Your task to perform on an android device: Open Yahoo.com Image 0: 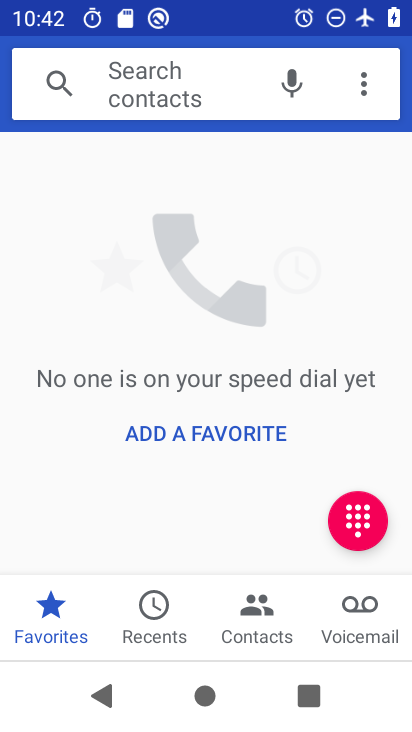
Step 0: press home button
Your task to perform on an android device: Open Yahoo.com Image 1: 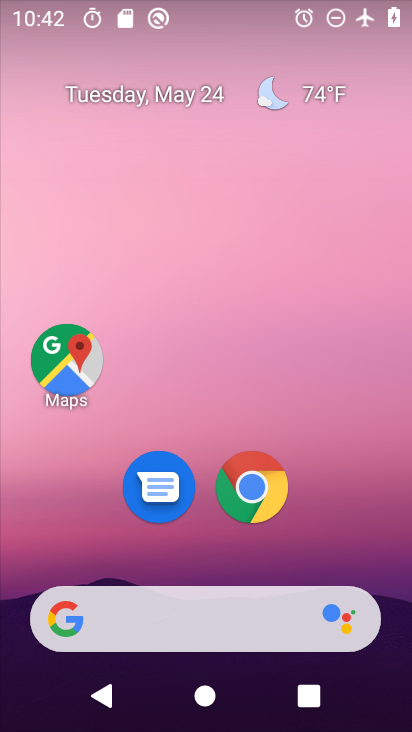
Step 1: click (255, 485)
Your task to perform on an android device: Open Yahoo.com Image 2: 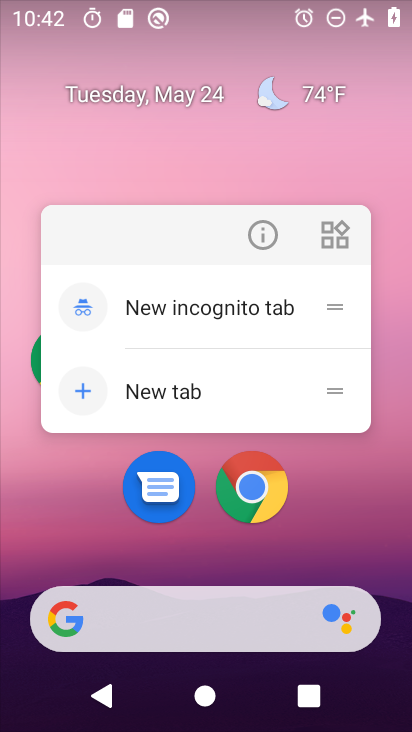
Step 2: click (255, 485)
Your task to perform on an android device: Open Yahoo.com Image 3: 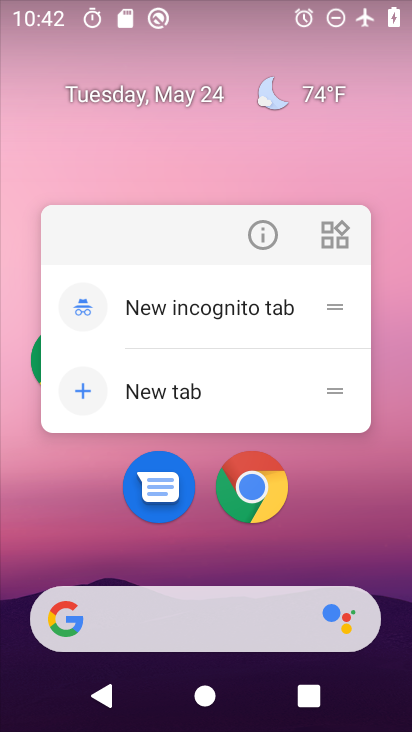
Step 3: click (252, 491)
Your task to perform on an android device: Open Yahoo.com Image 4: 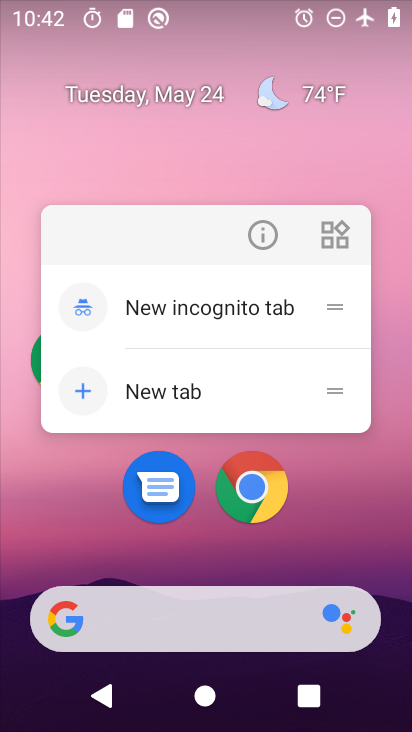
Step 4: click (252, 491)
Your task to perform on an android device: Open Yahoo.com Image 5: 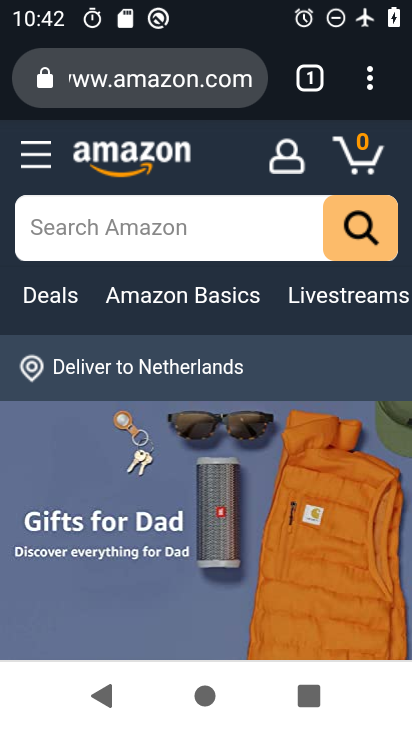
Step 5: click (139, 77)
Your task to perform on an android device: Open Yahoo.com Image 6: 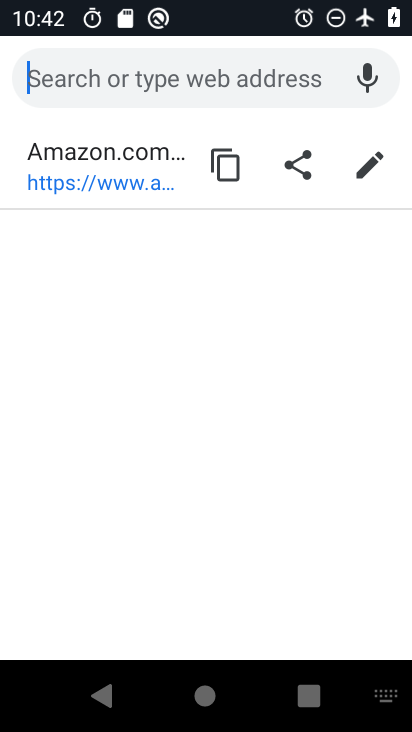
Step 6: type "yahoo.com"
Your task to perform on an android device: Open Yahoo.com Image 7: 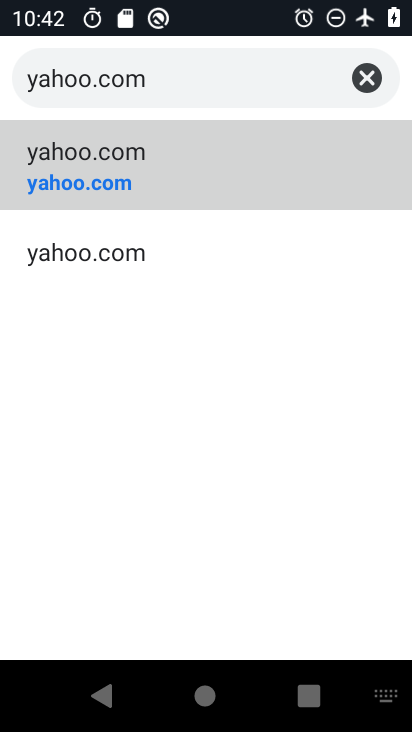
Step 7: click (96, 184)
Your task to perform on an android device: Open Yahoo.com Image 8: 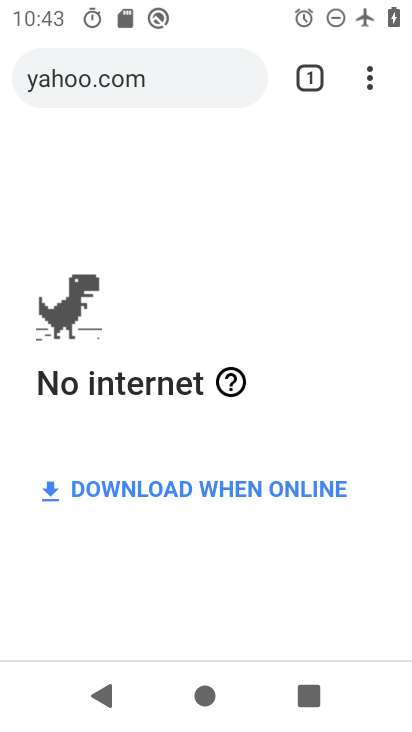
Step 8: task complete